Your task to perform on an android device: Play the last video I watched on Youtube Image 0: 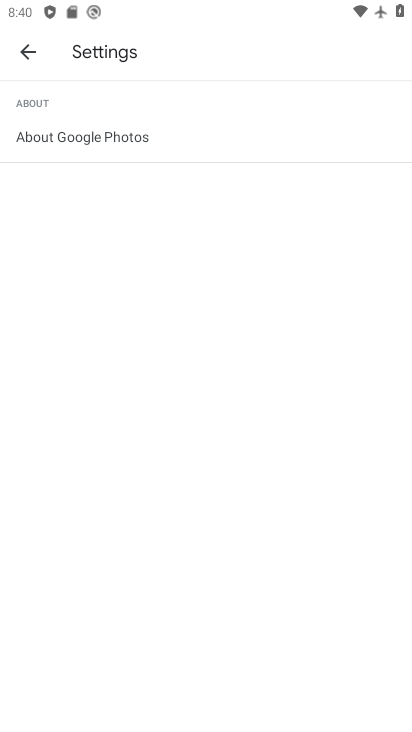
Step 0: press home button
Your task to perform on an android device: Play the last video I watched on Youtube Image 1: 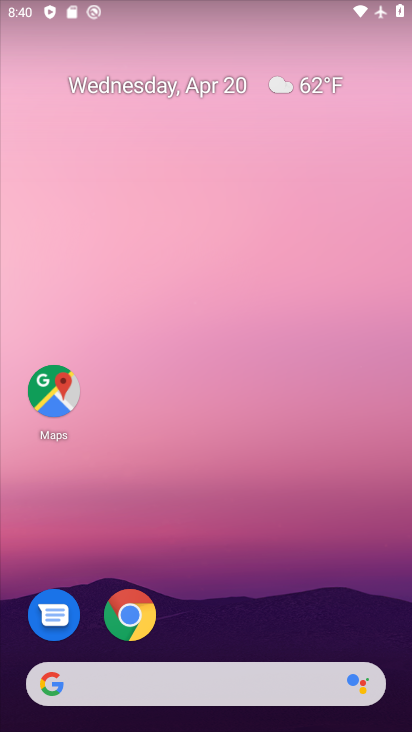
Step 1: drag from (166, 658) to (320, 65)
Your task to perform on an android device: Play the last video I watched on Youtube Image 2: 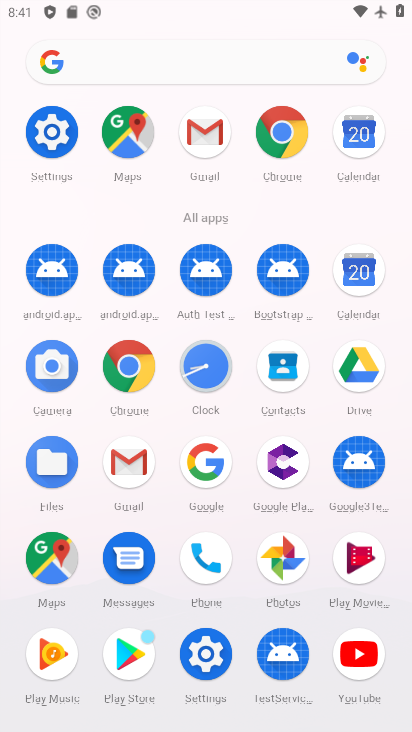
Step 2: click (356, 664)
Your task to perform on an android device: Play the last video I watched on Youtube Image 3: 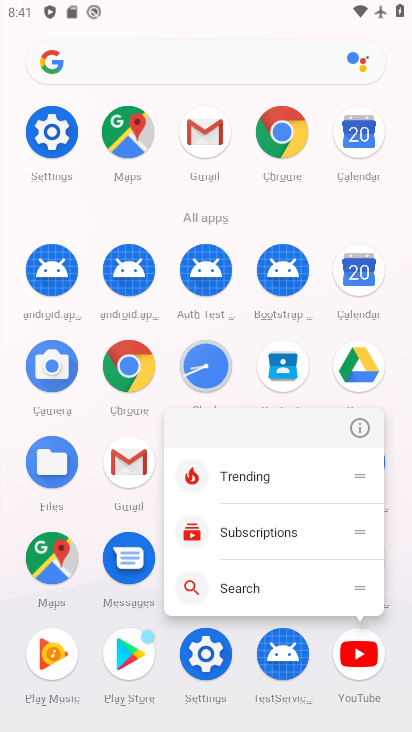
Step 3: click (362, 650)
Your task to perform on an android device: Play the last video I watched on Youtube Image 4: 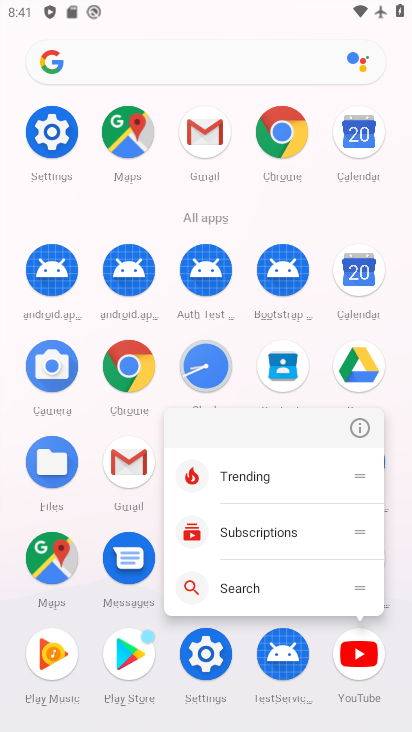
Step 4: click (362, 650)
Your task to perform on an android device: Play the last video I watched on Youtube Image 5: 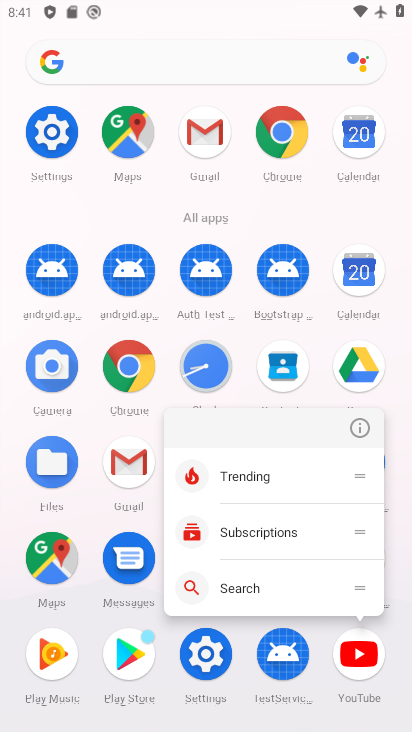
Step 5: click (361, 654)
Your task to perform on an android device: Play the last video I watched on Youtube Image 6: 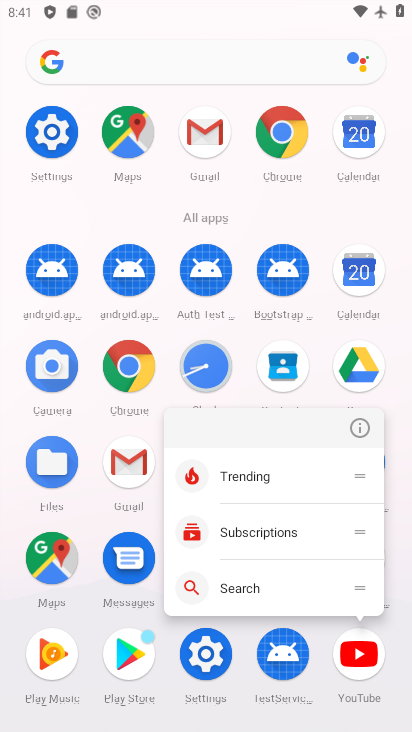
Step 6: click (358, 657)
Your task to perform on an android device: Play the last video I watched on Youtube Image 7: 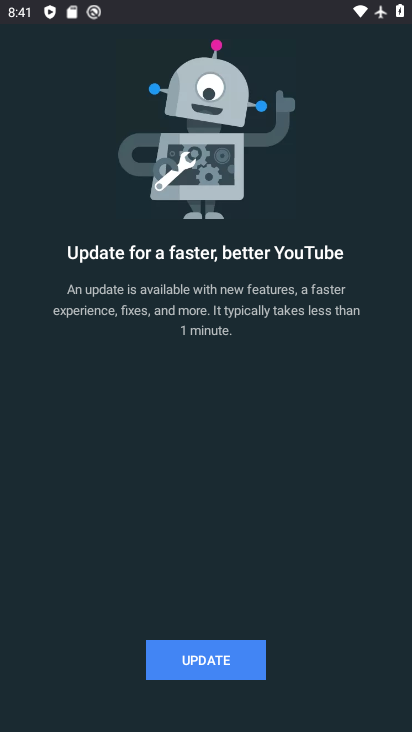
Step 7: click (197, 663)
Your task to perform on an android device: Play the last video I watched on Youtube Image 8: 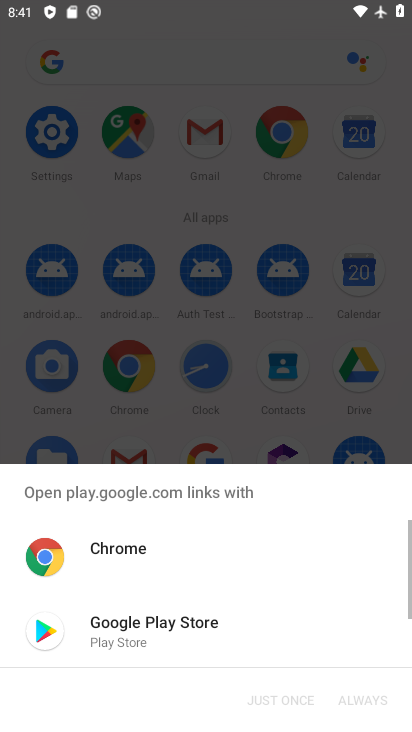
Step 8: click (120, 633)
Your task to perform on an android device: Play the last video I watched on Youtube Image 9: 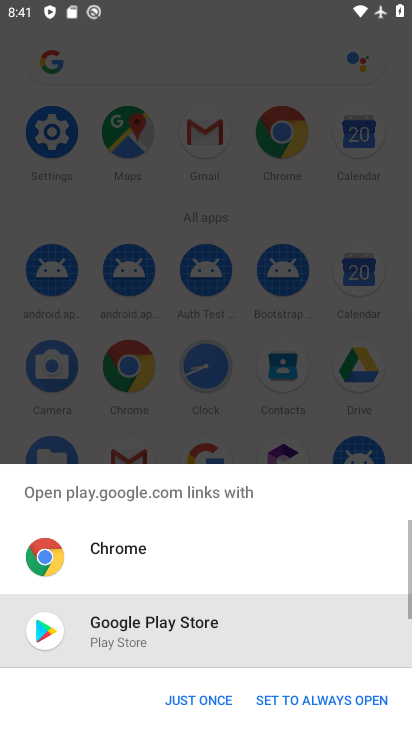
Step 9: click (187, 706)
Your task to perform on an android device: Play the last video I watched on Youtube Image 10: 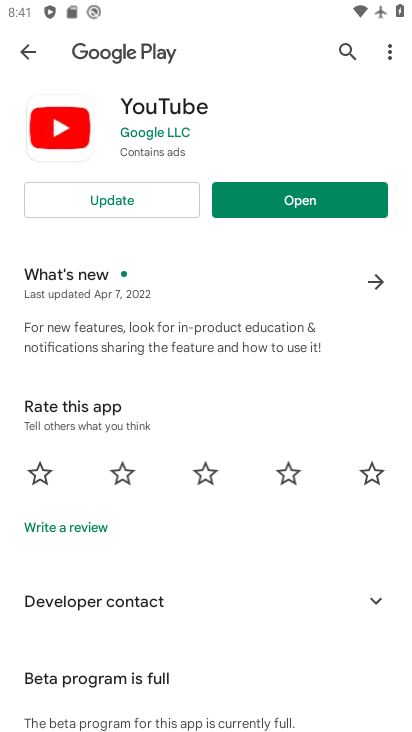
Step 10: click (145, 194)
Your task to perform on an android device: Play the last video I watched on Youtube Image 11: 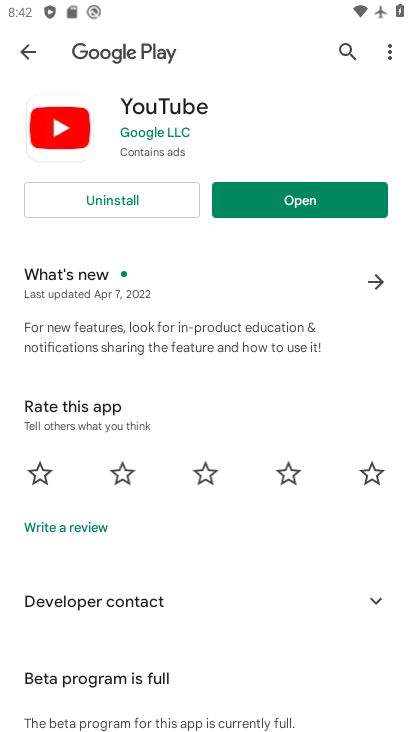
Step 11: click (281, 208)
Your task to perform on an android device: Play the last video I watched on Youtube Image 12: 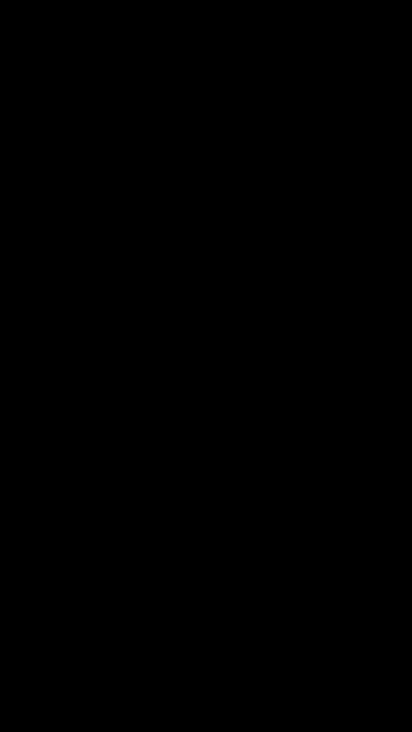
Step 12: task complete